Your task to perform on an android device: Do I have any events tomorrow? Image 0: 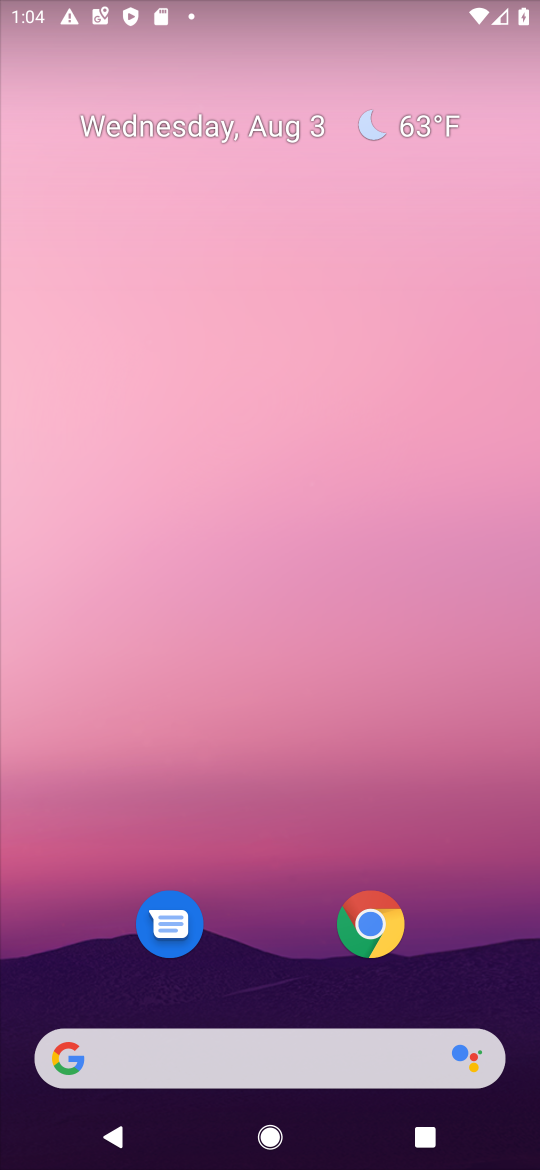
Step 0: drag from (270, 854) to (403, 46)
Your task to perform on an android device: Do I have any events tomorrow? Image 1: 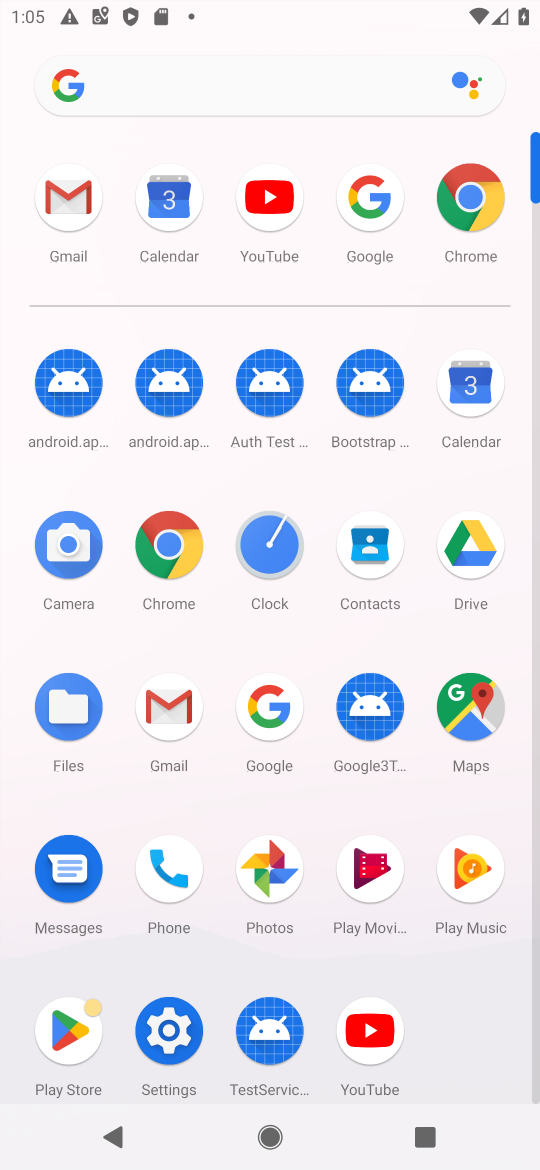
Step 1: click (480, 379)
Your task to perform on an android device: Do I have any events tomorrow? Image 2: 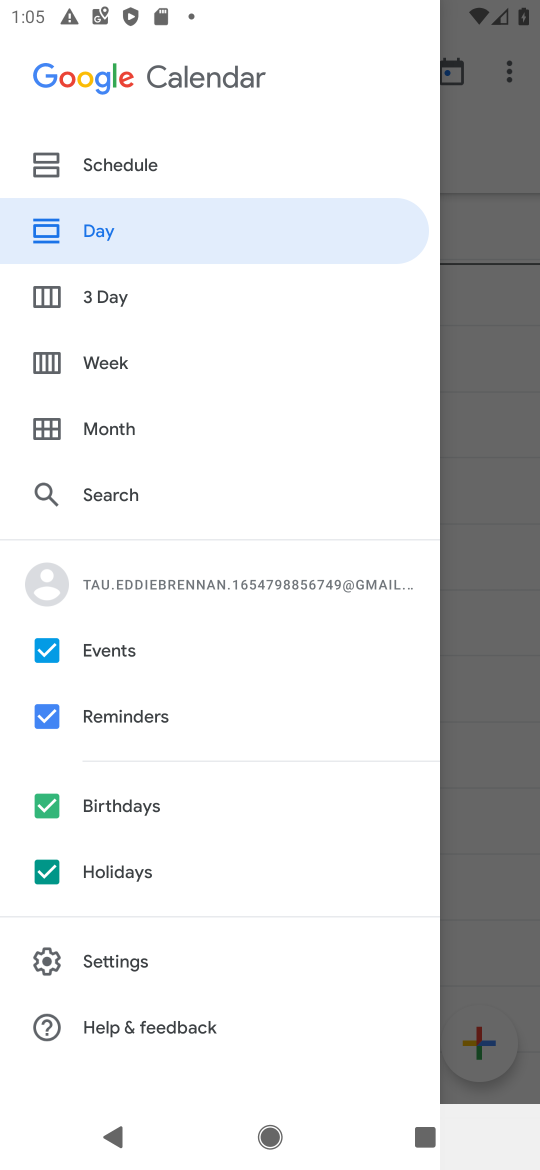
Step 2: click (460, 330)
Your task to perform on an android device: Do I have any events tomorrow? Image 3: 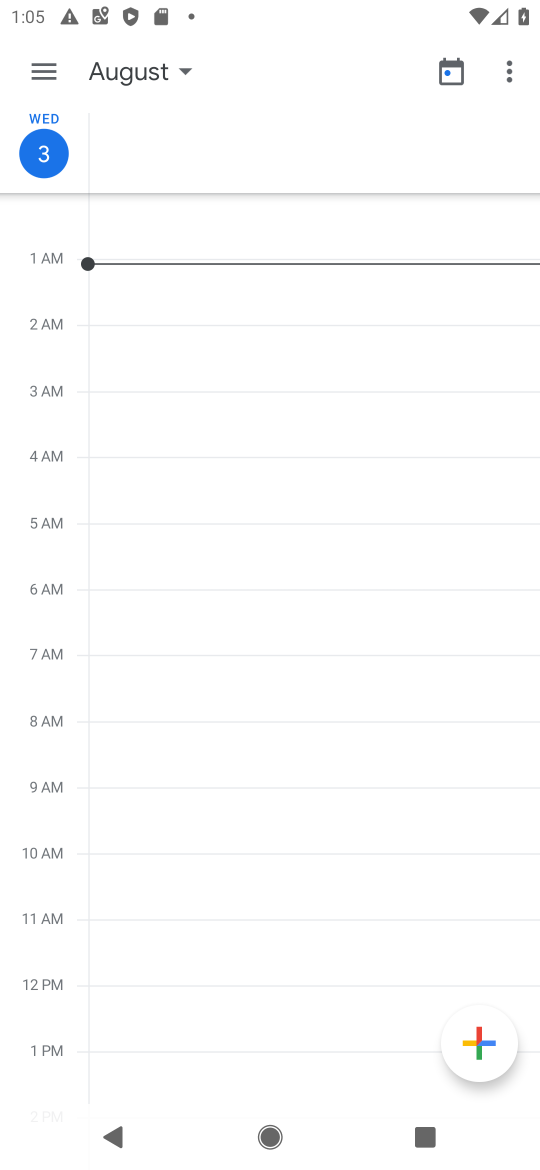
Step 3: click (40, 59)
Your task to perform on an android device: Do I have any events tomorrow? Image 4: 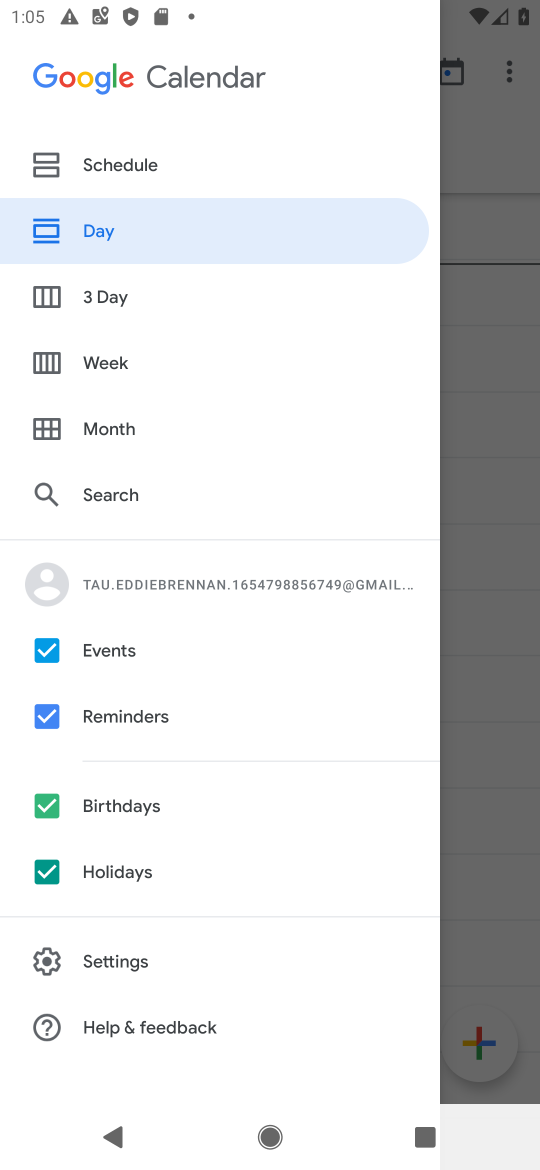
Step 4: click (491, 321)
Your task to perform on an android device: Do I have any events tomorrow? Image 5: 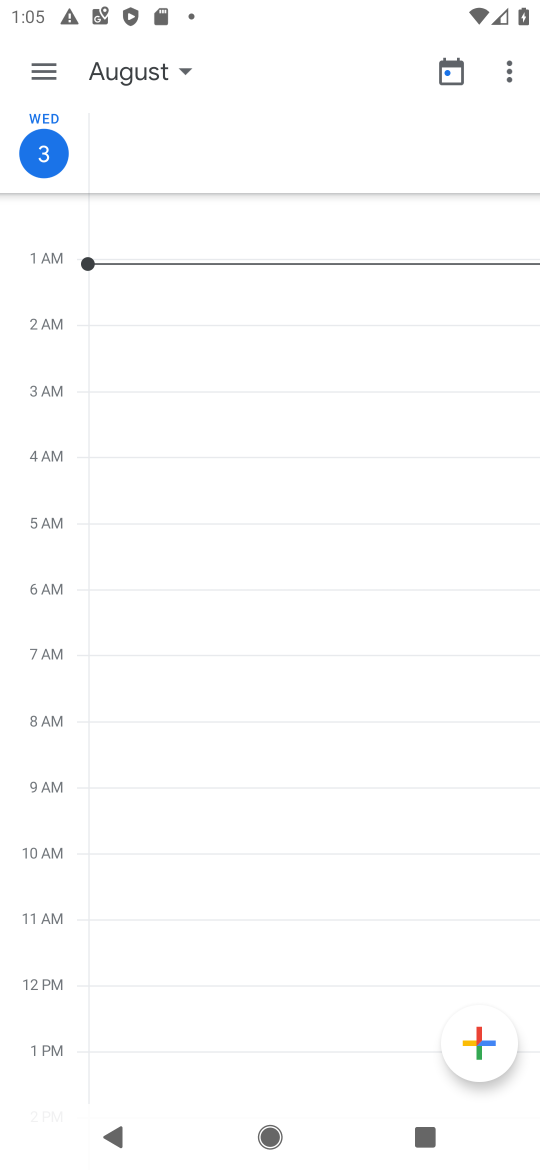
Step 5: click (187, 71)
Your task to perform on an android device: Do I have any events tomorrow? Image 6: 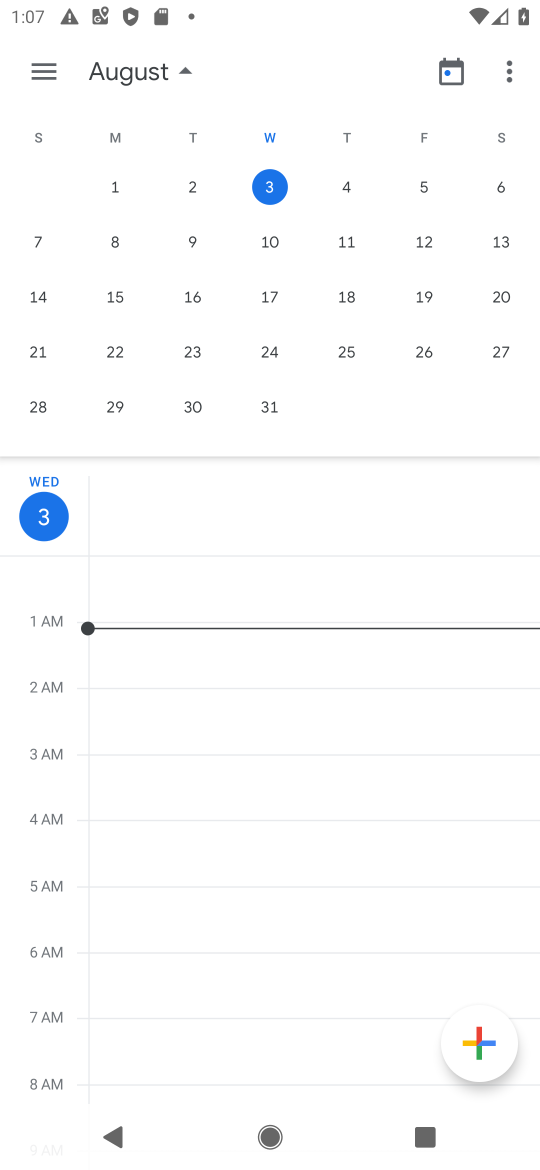
Step 6: click (335, 189)
Your task to perform on an android device: Do I have any events tomorrow? Image 7: 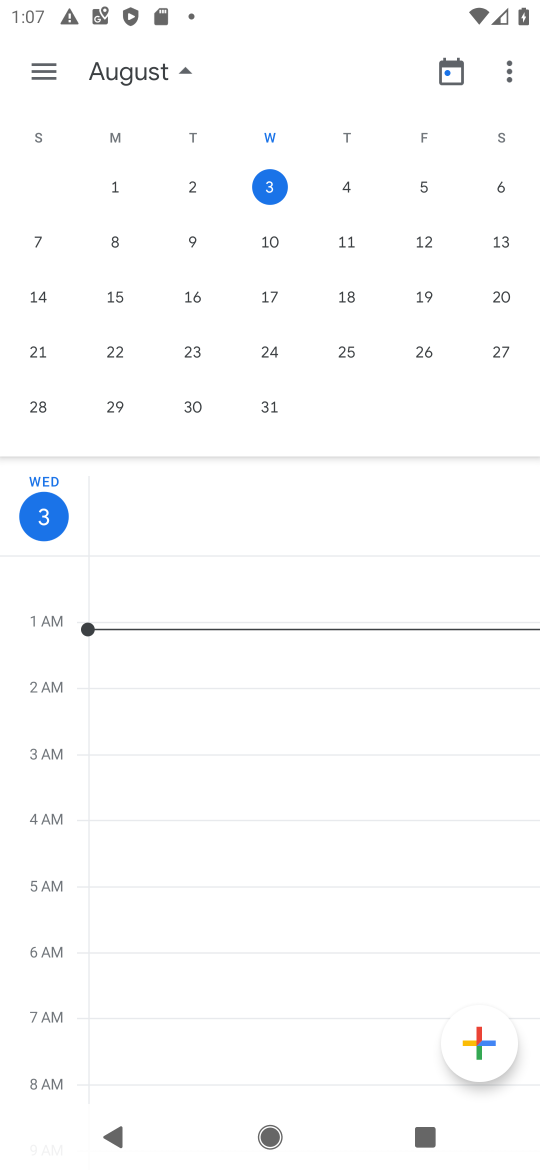
Step 7: click (339, 181)
Your task to perform on an android device: Do I have any events tomorrow? Image 8: 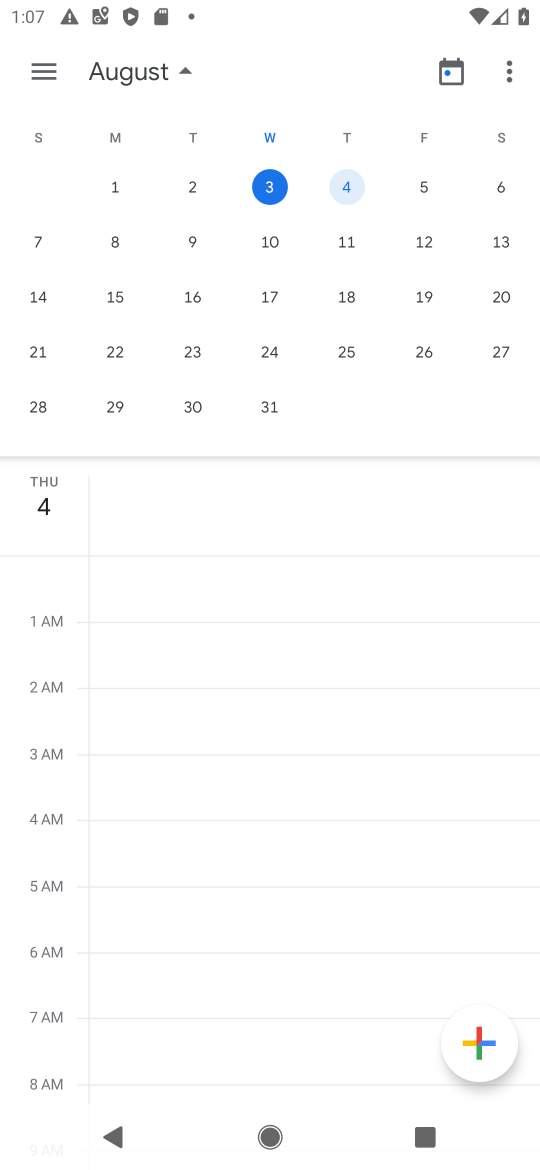
Step 8: click (38, 63)
Your task to perform on an android device: Do I have any events tomorrow? Image 9: 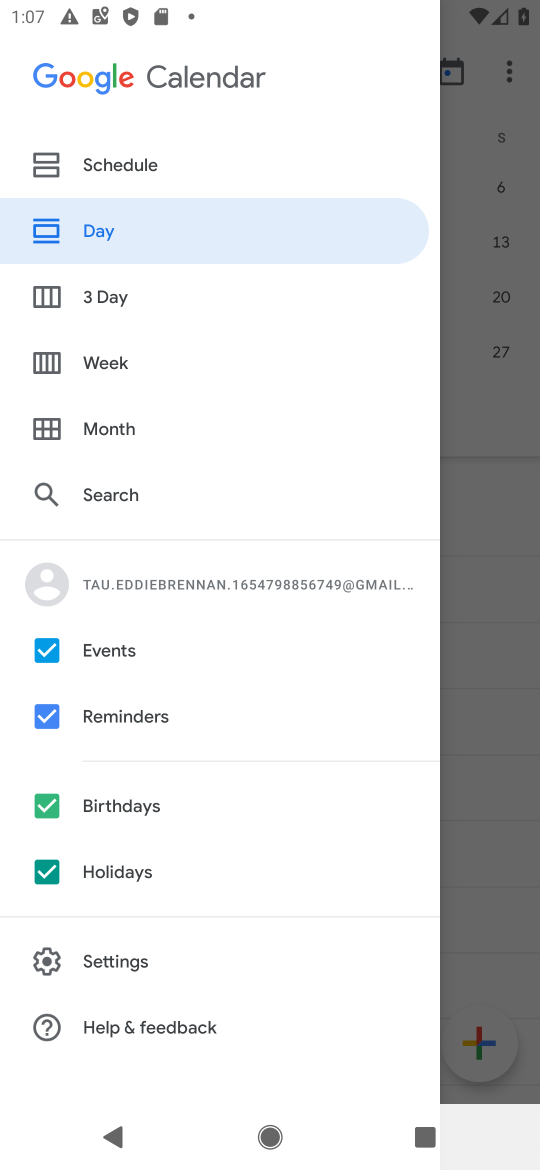
Step 9: click (156, 153)
Your task to perform on an android device: Do I have any events tomorrow? Image 10: 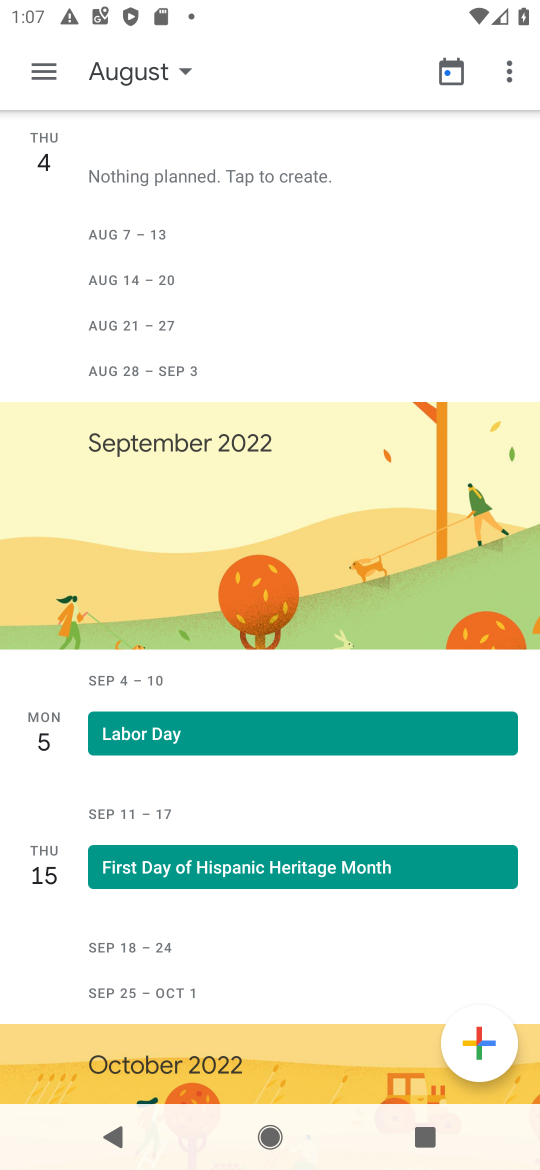
Step 10: task complete